Your task to perform on an android device: Go to calendar. Show me events next week Image 0: 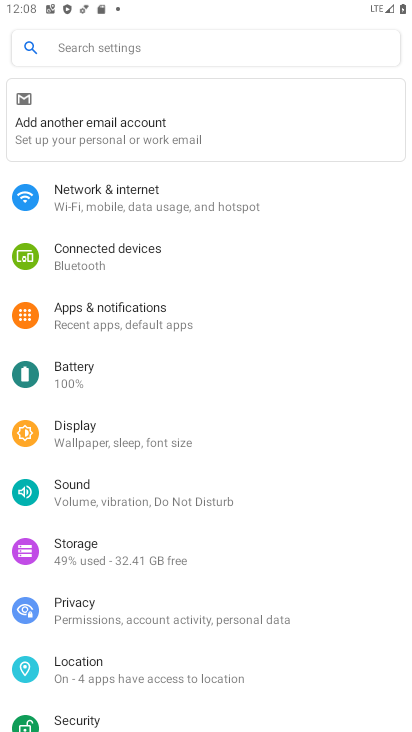
Step 0: press home button
Your task to perform on an android device: Go to calendar. Show me events next week Image 1: 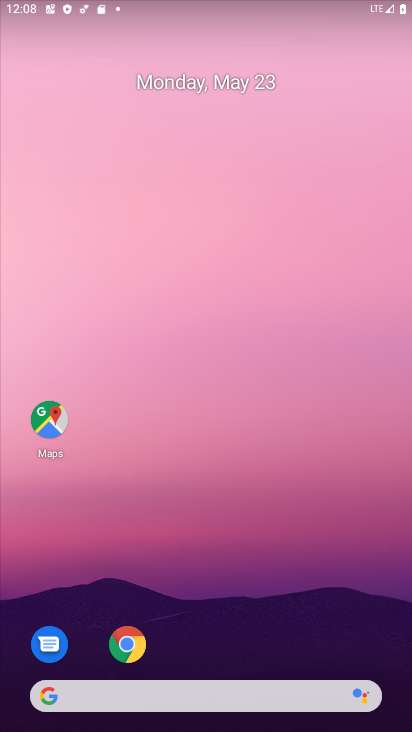
Step 1: drag from (344, 626) to (287, 49)
Your task to perform on an android device: Go to calendar. Show me events next week Image 2: 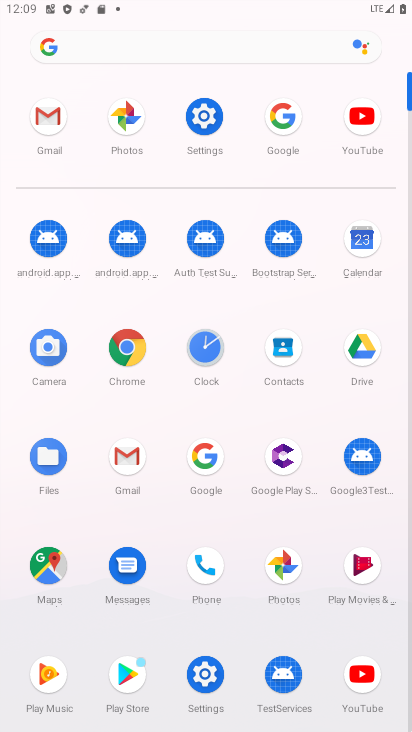
Step 2: click (358, 254)
Your task to perform on an android device: Go to calendar. Show me events next week Image 3: 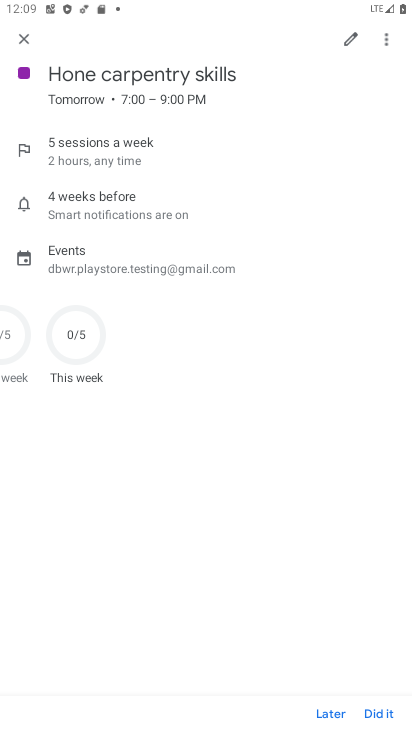
Step 3: task complete